Your task to perform on an android device: change the clock display to digital Image 0: 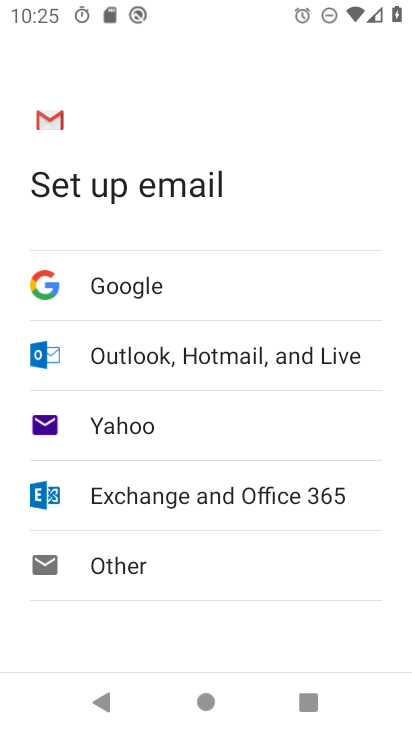
Step 0: press home button
Your task to perform on an android device: change the clock display to digital Image 1: 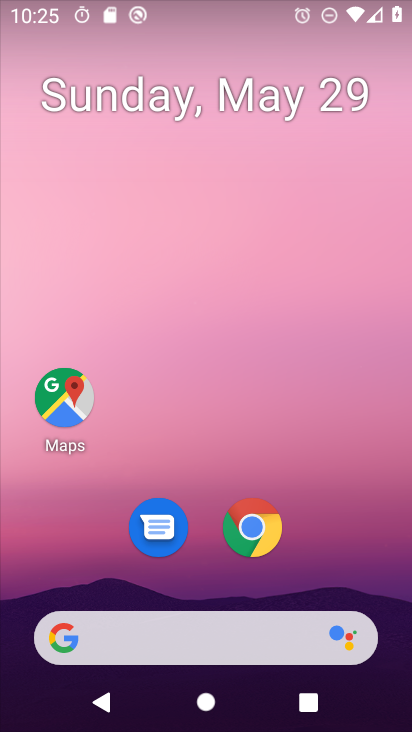
Step 1: drag from (389, 656) to (264, 90)
Your task to perform on an android device: change the clock display to digital Image 2: 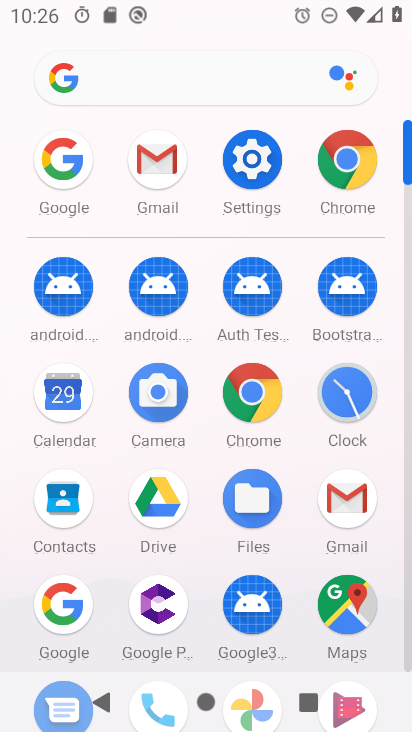
Step 2: click (325, 393)
Your task to perform on an android device: change the clock display to digital Image 3: 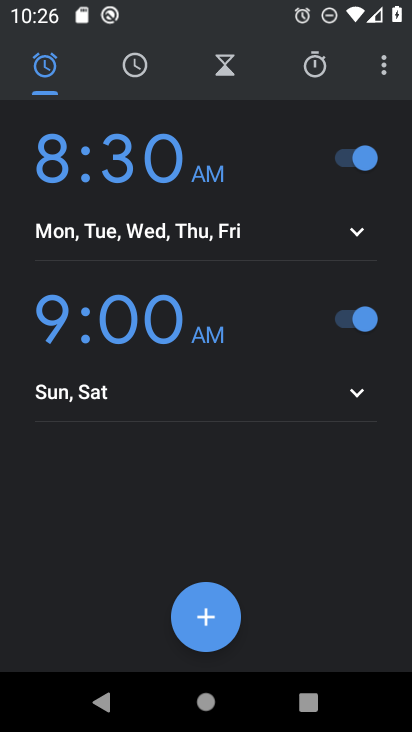
Step 3: click (393, 74)
Your task to perform on an android device: change the clock display to digital Image 4: 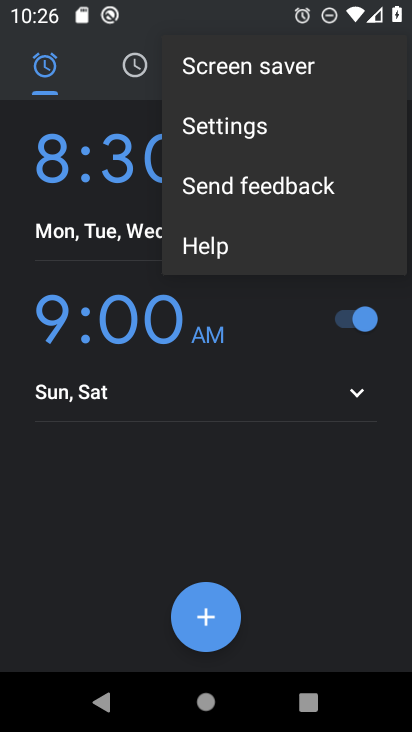
Step 4: click (261, 140)
Your task to perform on an android device: change the clock display to digital Image 5: 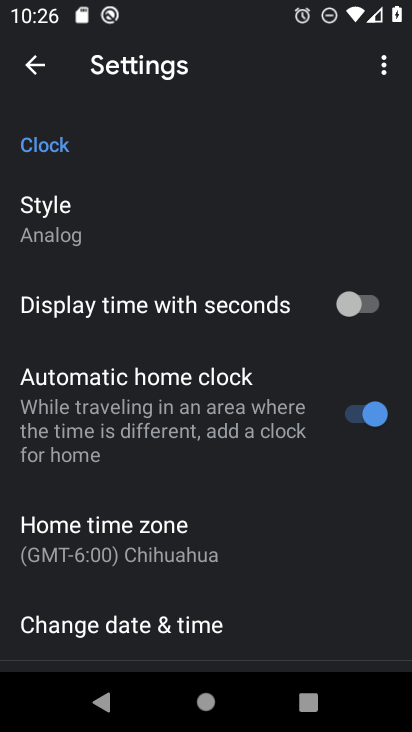
Step 5: drag from (166, 585) to (175, 460)
Your task to perform on an android device: change the clock display to digital Image 6: 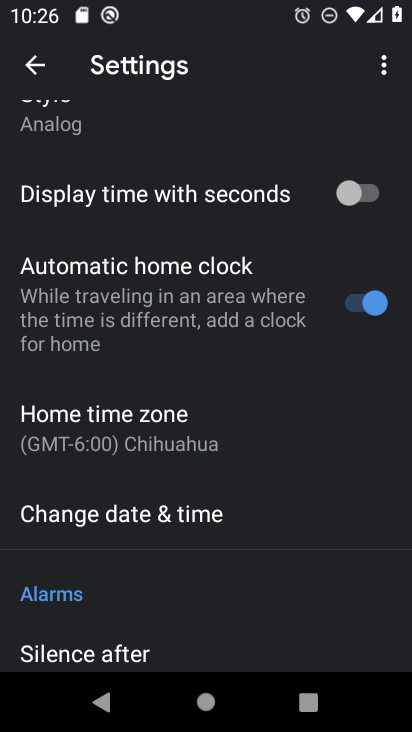
Step 6: click (108, 138)
Your task to perform on an android device: change the clock display to digital Image 7: 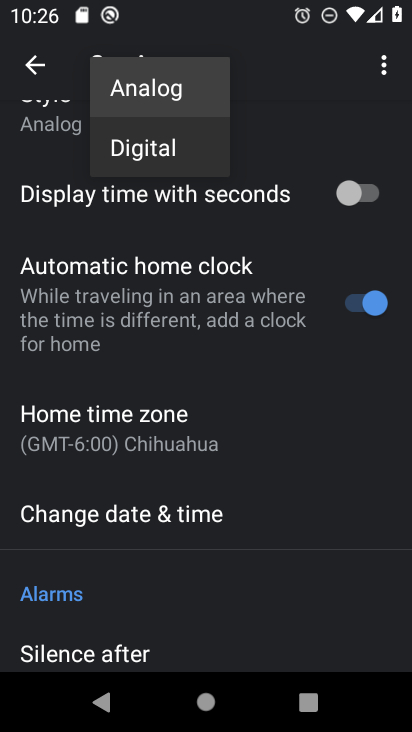
Step 7: click (108, 138)
Your task to perform on an android device: change the clock display to digital Image 8: 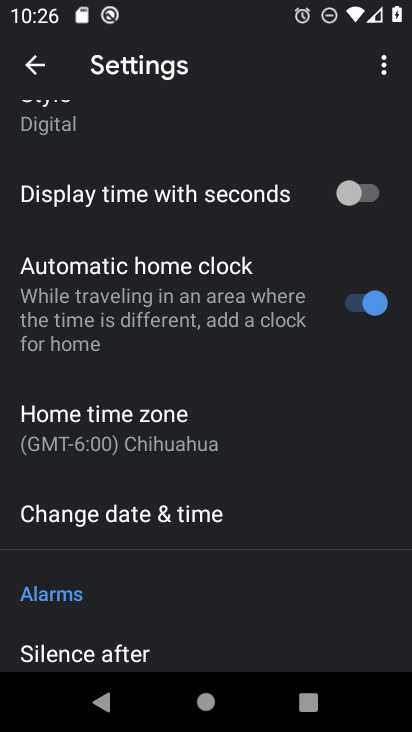
Step 8: task complete